Your task to perform on an android device: turn off notifications in google photos Image 0: 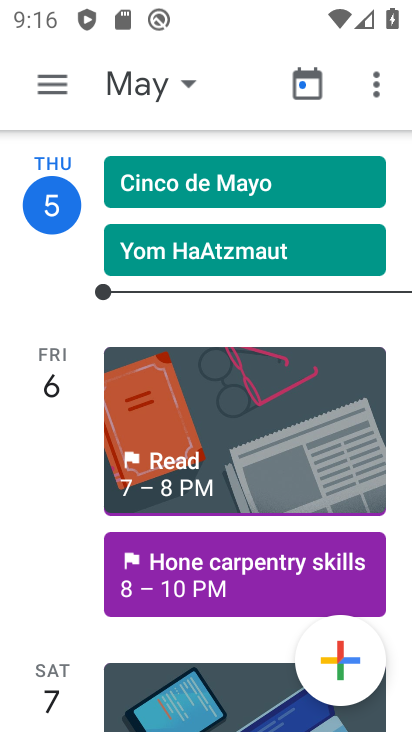
Step 0: press home button
Your task to perform on an android device: turn off notifications in google photos Image 1: 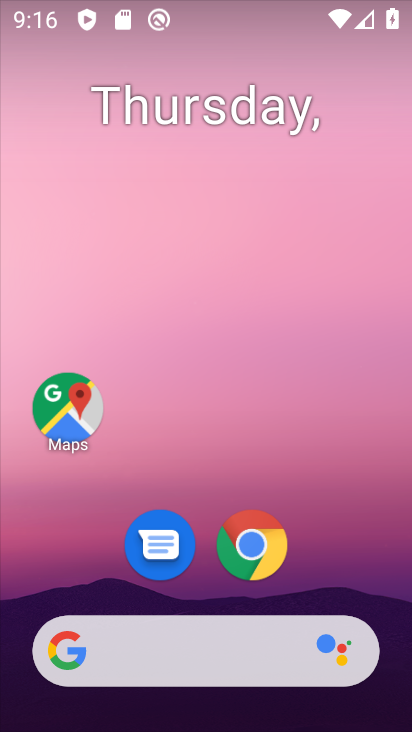
Step 1: drag from (322, 577) to (294, 26)
Your task to perform on an android device: turn off notifications in google photos Image 2: 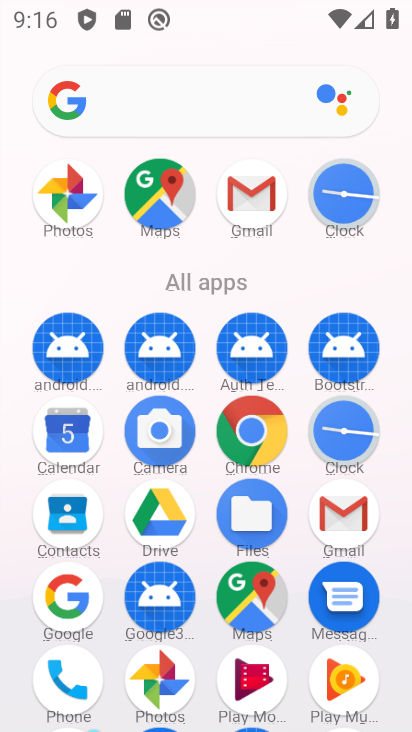
Step 2: click (69, 191)
Your task to perform on an android device: turn off notifications in google photos Image 3: 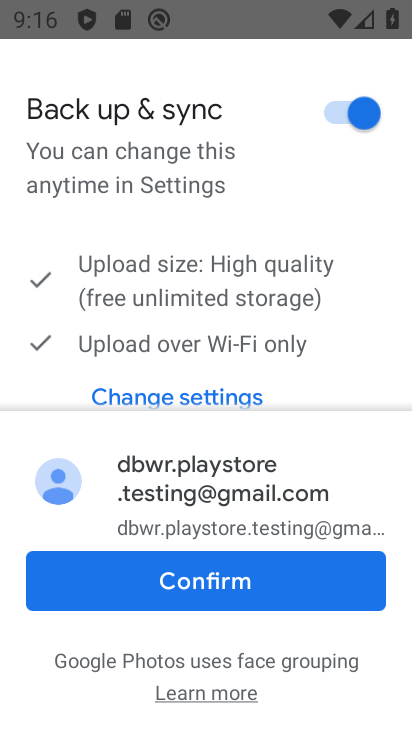
Step 3: click (215, 581)
Your task to perform on an android device: turn off notifications in google photos Image 4: 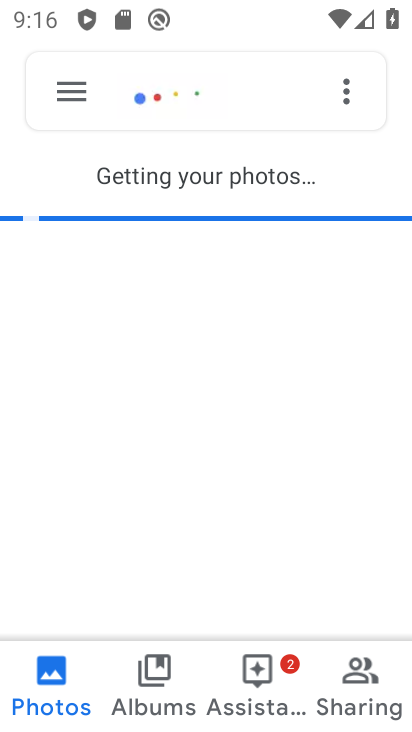
Step 4: click (72, 83)
Your task to perform on an android device: turn off notifications in google photos Image 5: 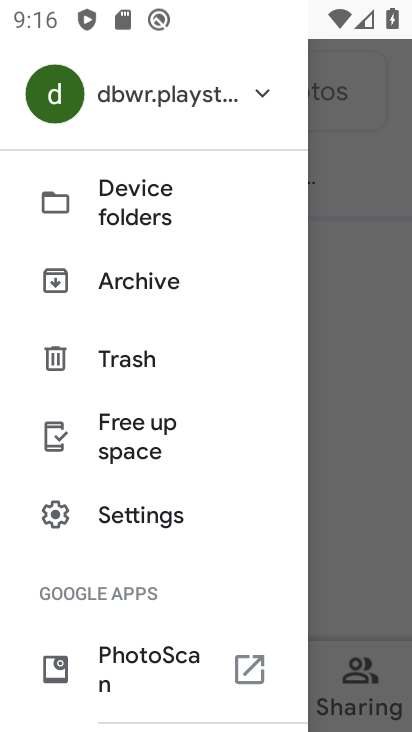
Step 5: click (126, 517)
Your task to perform on an android device: turn off notifications in google photos Image 6: 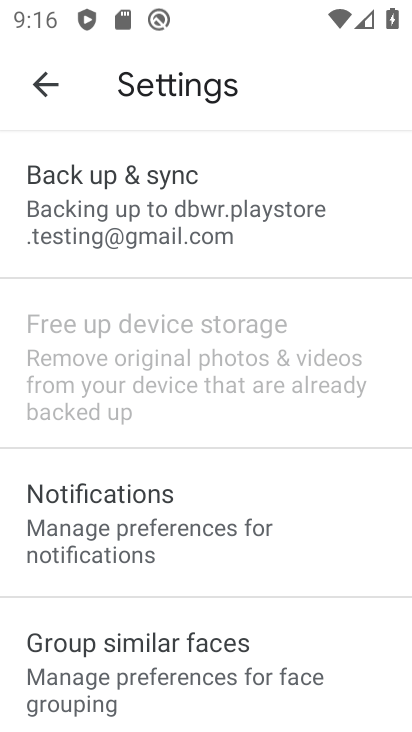
Step 6: click (128, 489)
Your task to perform on an android device: turn off notifications in google photos Image 7: 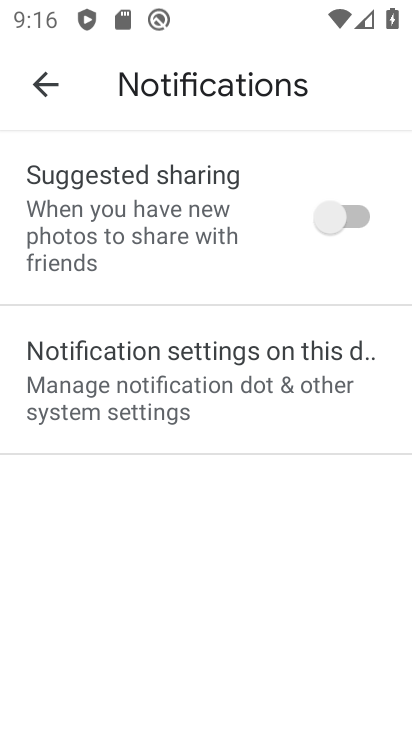
Step 7: click (226, 365)
Your task to perform on an android device: turn off notifications in google photos Image 8: 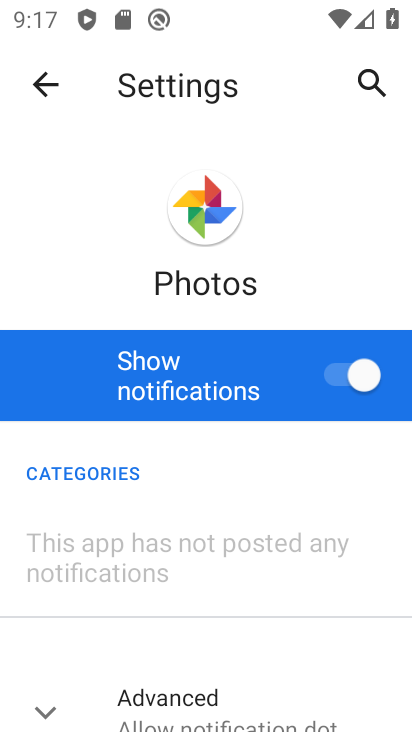
Step 8: click (358, 386)
Your task to perform on an android device: turn off notifications in google photos Image 9: 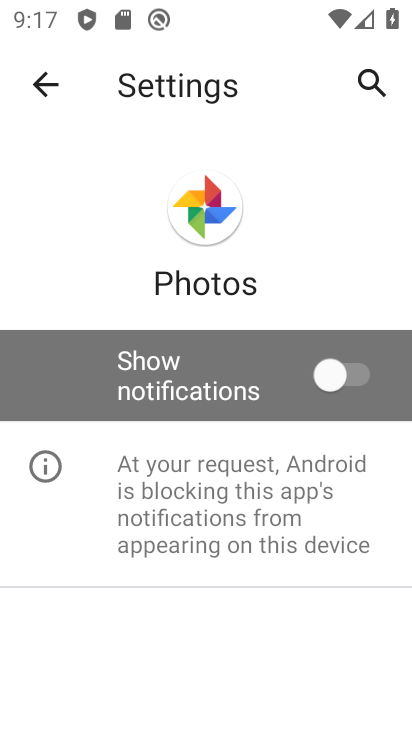
Step 9: task complete